Your task to perform on an android device: Open settings Image 0: 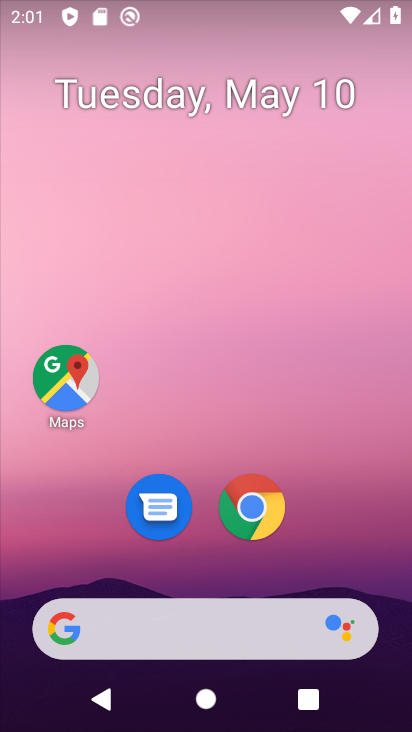
Step 0: drag from (196, 599) to (224, 191)
Your task to perform on an android device: Open settings Image 1: 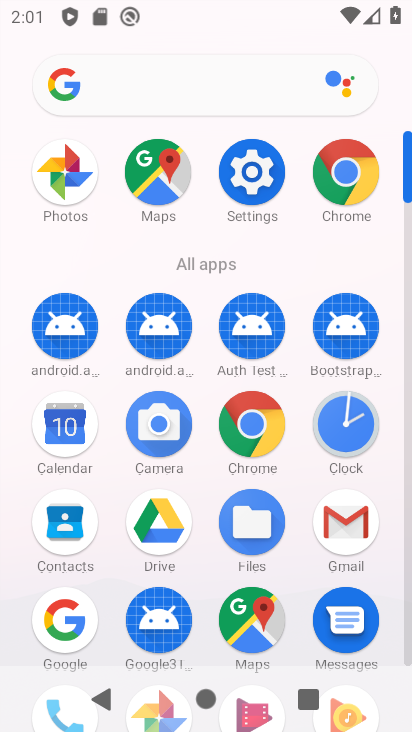
Step 1: click (248, 206)
Your task to perform on an android device: Open settings Image 2: 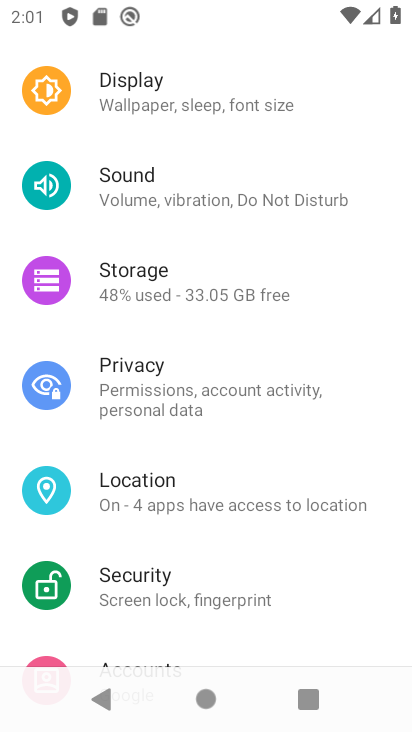
Step 2: task complete